Your task to perform on an android device: Open Youtube and go to "Your channel" Image 0: 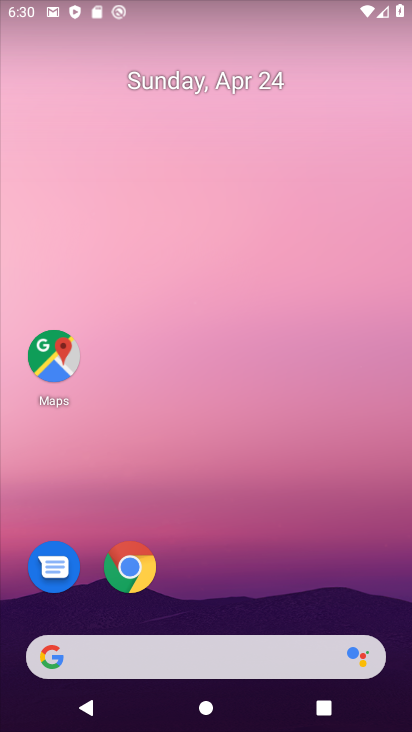
Step 0: drag from (345, 507) to (264, 76)
Your task to perform on an android device: Open Youtube and go to "Your channel" Image 1: 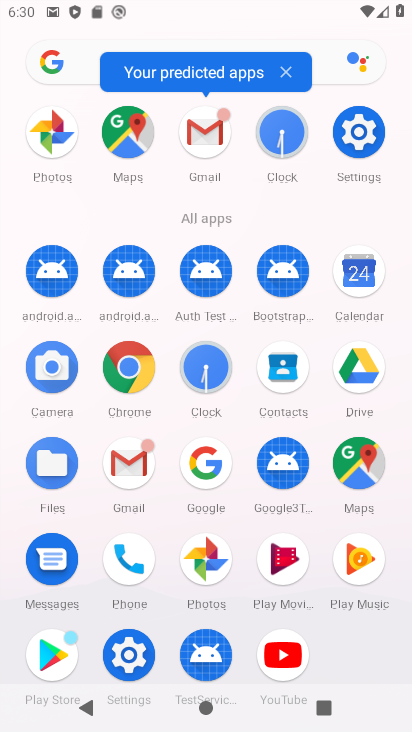
Step 1: click (289, 647)
Your task to perform on an android device: Open Youtube and go to "Your channel" Image 2: 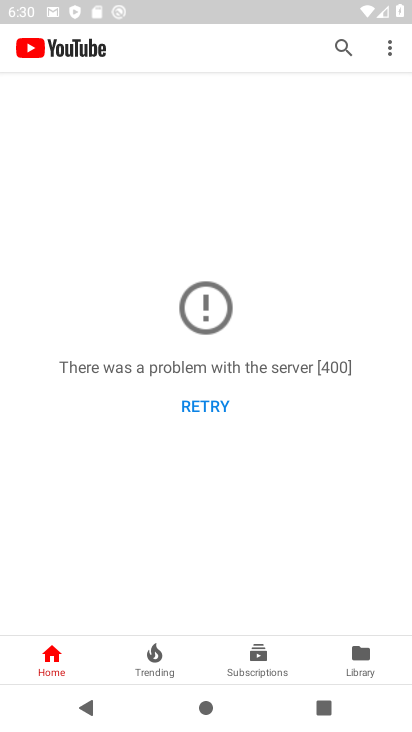
Step 2: click (359, 652)
Your task to perform on an android device: Open Youtube and go to "Your channel" Image 3: 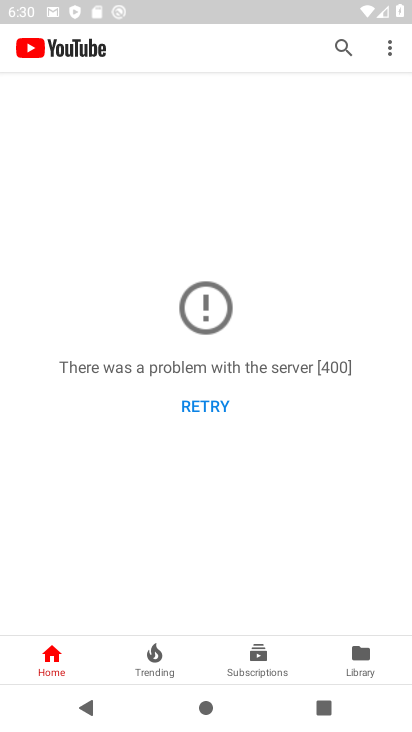
Step 3: click (215, 401)
Your task to perform on an android device: Open Youtube and go to "Your channel" Image 4: 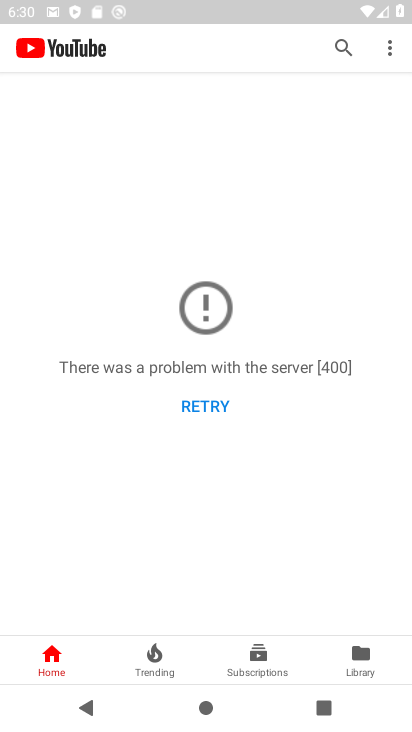
Step 4: click (215, 401)
Your task to perform on an android device: Open Youtube and go to "Your channel" Image 5: 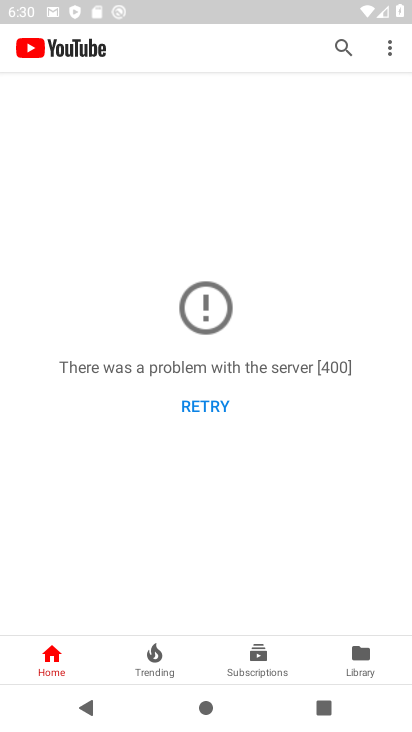
Step 5: click (215, 401)
Your task to perform on an android device: Open Youtube and go to "Your channel" Image 6: 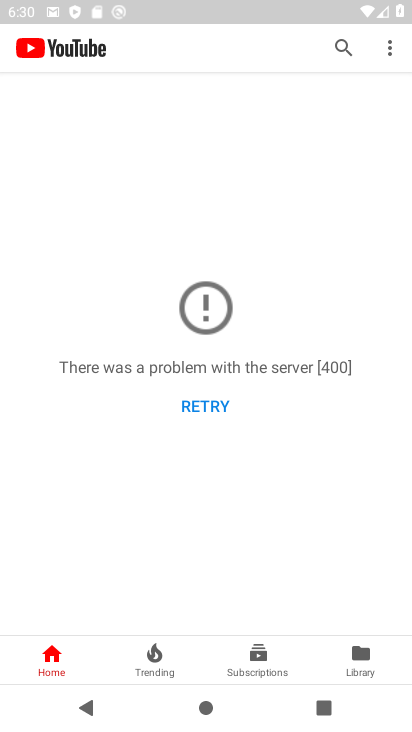
Step 6: click (371, 646)
Your task to perform on an android device: Open Youtube and go to "Your channel" Image 7: 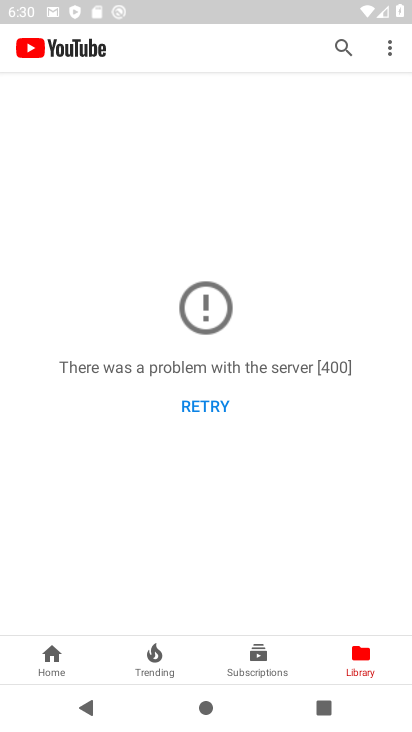
Step 7: click (211, 365)
Your task to perform on an android device: Open Youtube and go to "Your channel" Image 8: 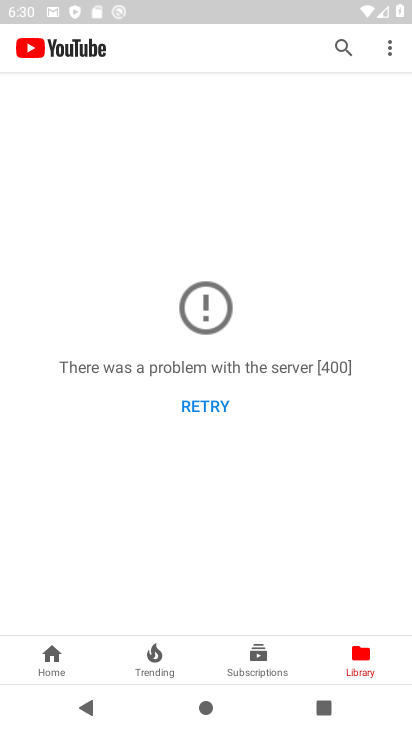
Step 8: click (216, 392)
Your task to perform on an android device: Open Youtube and go to "Your channel" Image 9: 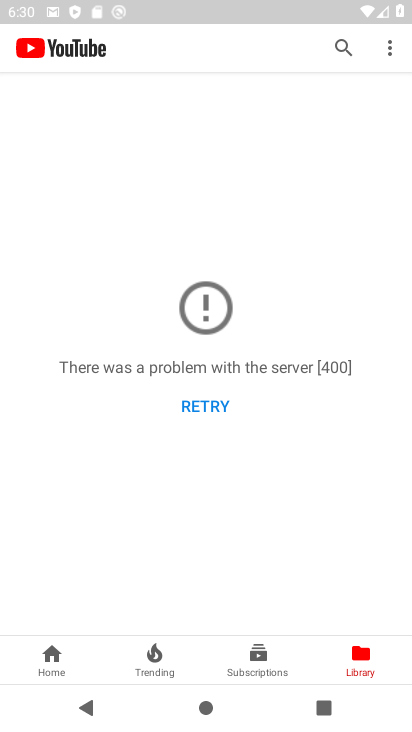
Step 9: click (216, 402)
Your task to perform on an android device: Open Youtube and go to "Your channel" Image 10: 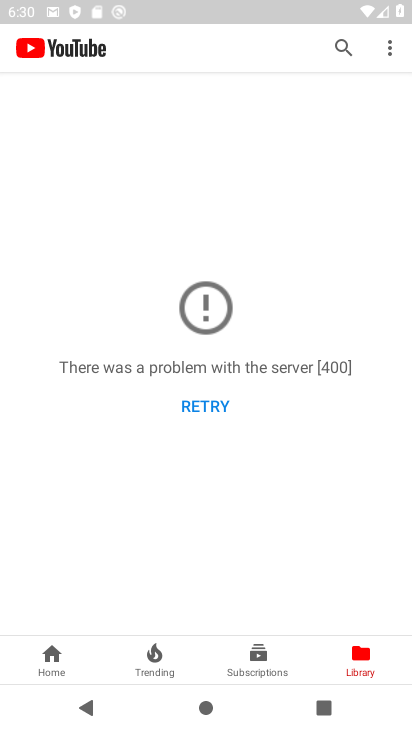
Step 10: click (216, 402)
Your task to perform on an android device: Open Youtube and go to "Your channel" Image 11: 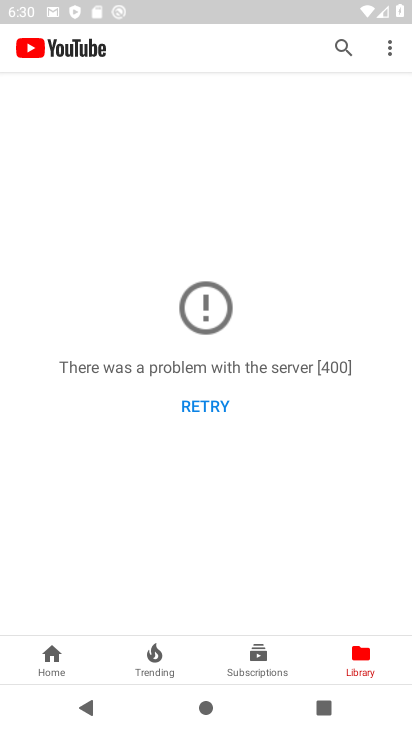
Step 11: click (216, 402)
Your task to perform on an android device: Open Youtube and go to "Your channel" Image 12: 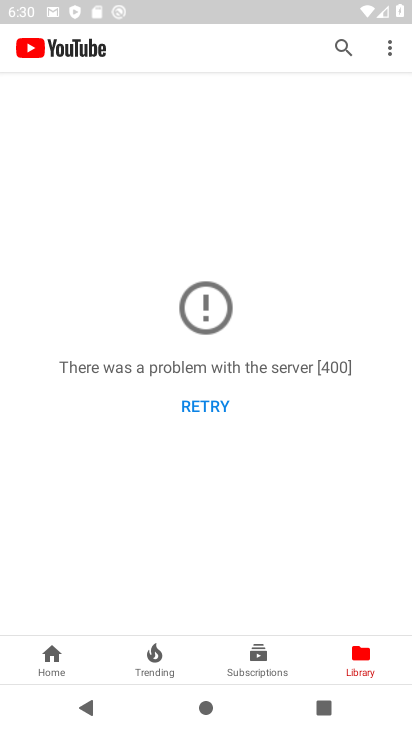
Step 12: click (216, 402)
Your task to perform on an android device: Open Youtube and go to "Your channel" Image 13: 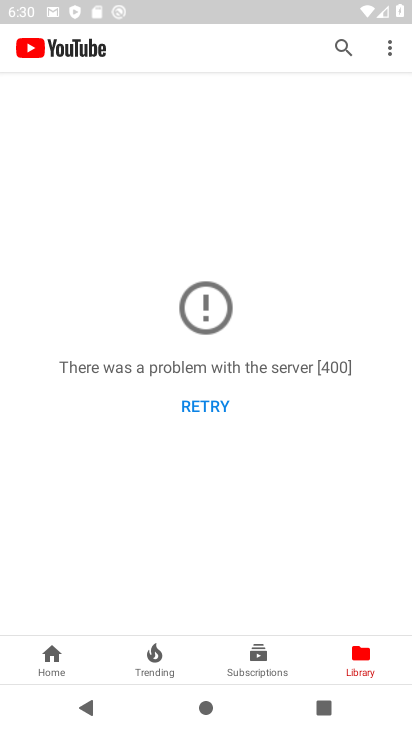
Step 13: task complete